Your task to perform on an android device: delete browsing data in the chrome app Image 0: 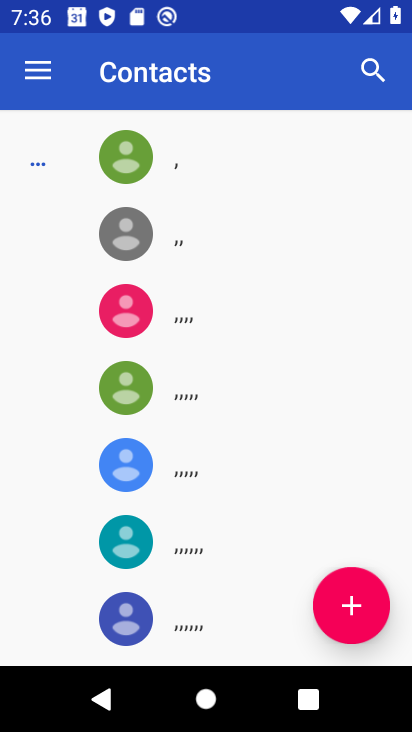
Step 0: press home button
Your task to perform on an android device: delete browsing data in the chrome app Image 1: 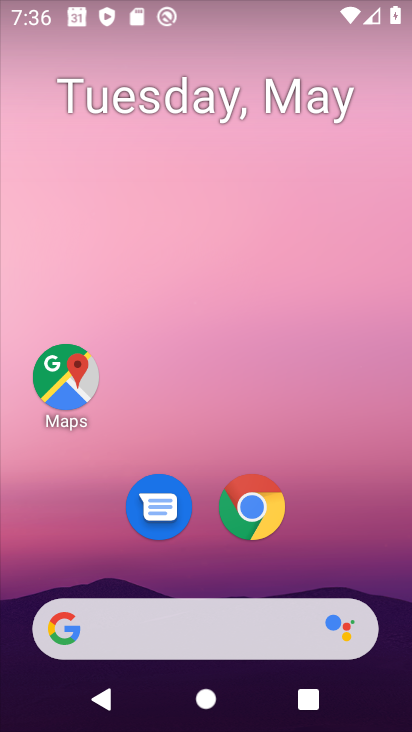
Step 1: click (244, 512)
Your task to perform on an android device: delete browsing data in the chrome app Image 2: 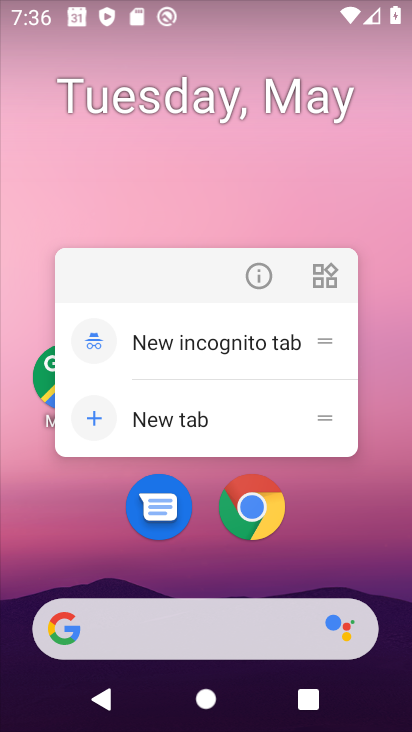
Step 2: click (244, 512)
Your task to perform on an android device: delete browsing data in the chrome app Image 3: 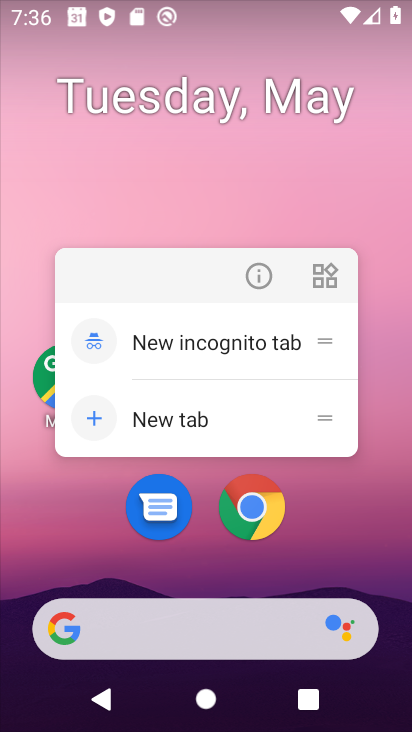
Step 3: click (244, 512)
Your task to perform on an android device: delete browsing data in the chrome app Image 4: 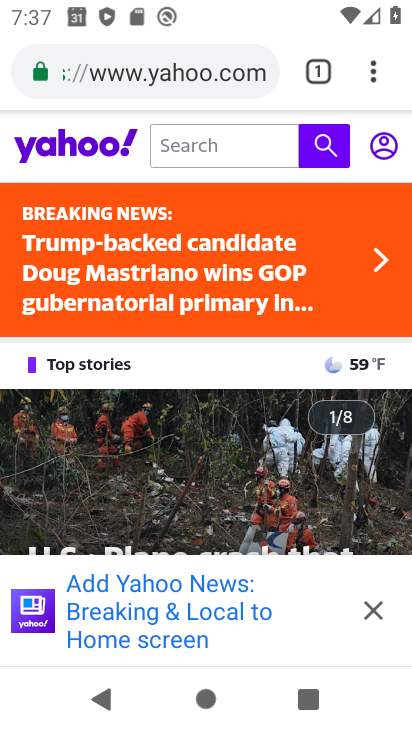
Step 4: click (370, 78)
Your task to perform on an android device: delete browsing data in the chrome app Image 5: 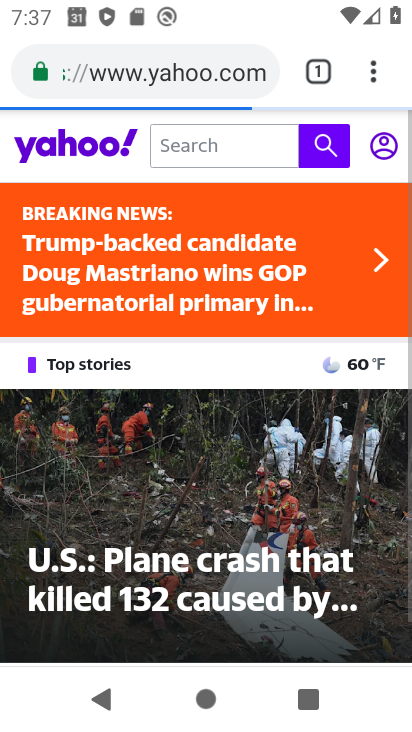
Step 5: click (369, 79)
Your task to perform on an android device: delete browsing data in the chrome app Image 6: 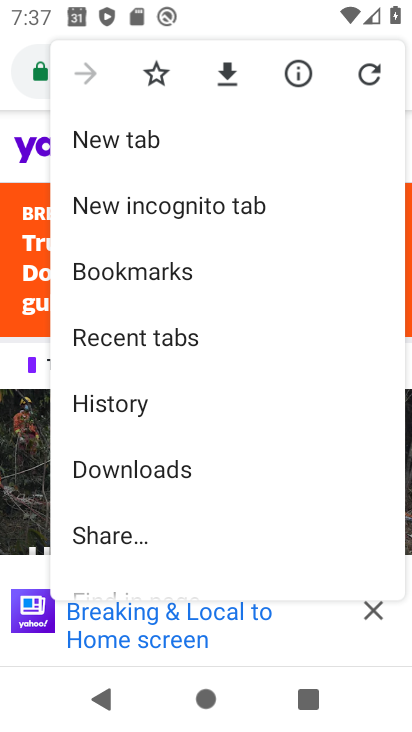
Step 6: click (119, 409)
Your task to perform on an android device: delete browsing data in the chrome app Image 7: 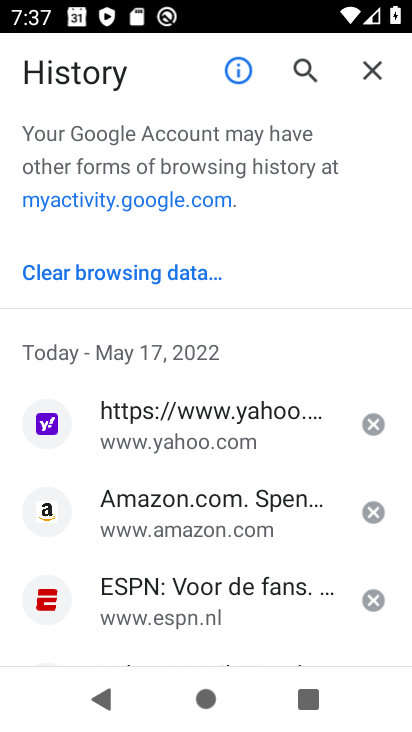
Step 7: click (85, 264)
Your task to perform on an android device: delete browsing data in the chrome app Image 8: 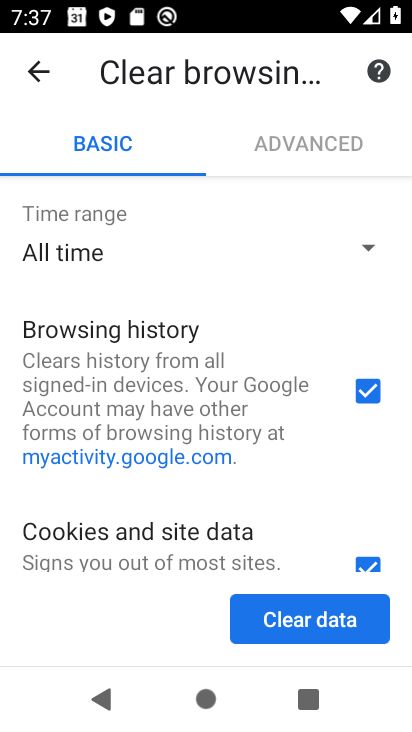
Step 8: click (314, 617)
Your task to perform on an android device: delete browsing data in the chrome app Image 9: 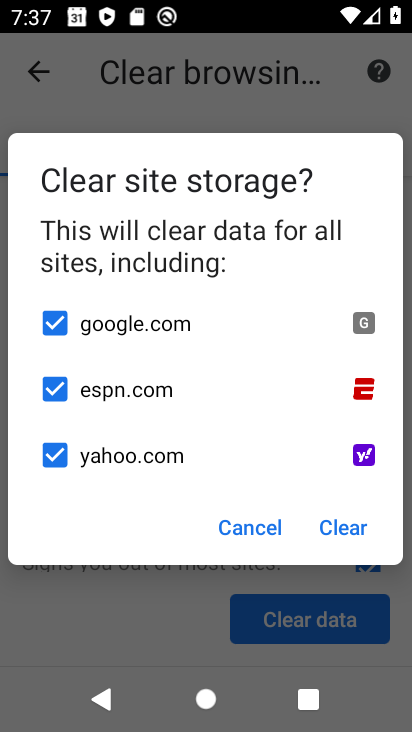
Step 9: click (354, 523)
Your task to perform on an android device: delete browsing data in the chrome app Image 10: 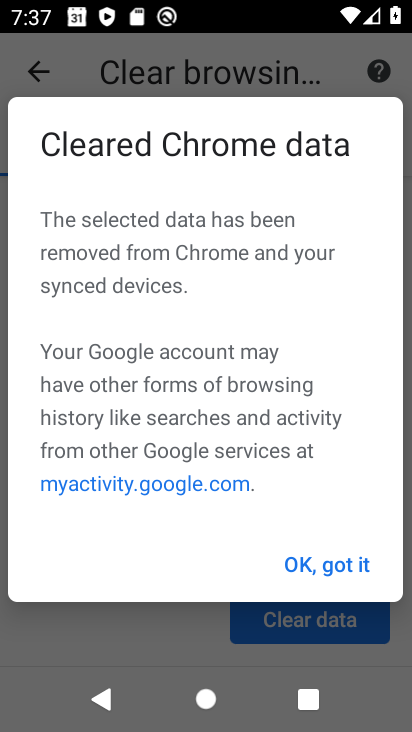
Step 10: click (356, 568)
Your task to perform on an android device: delete browsing data in the chrome app Image 11: 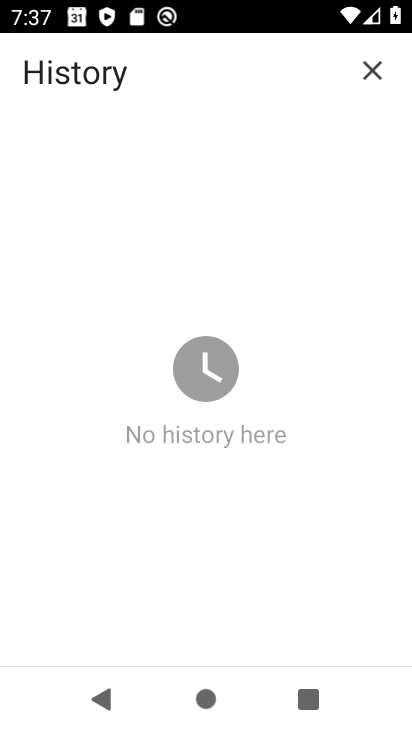
Step 11: task complete